Your task to perform on an android device: What's on my calendar today? Image 0: 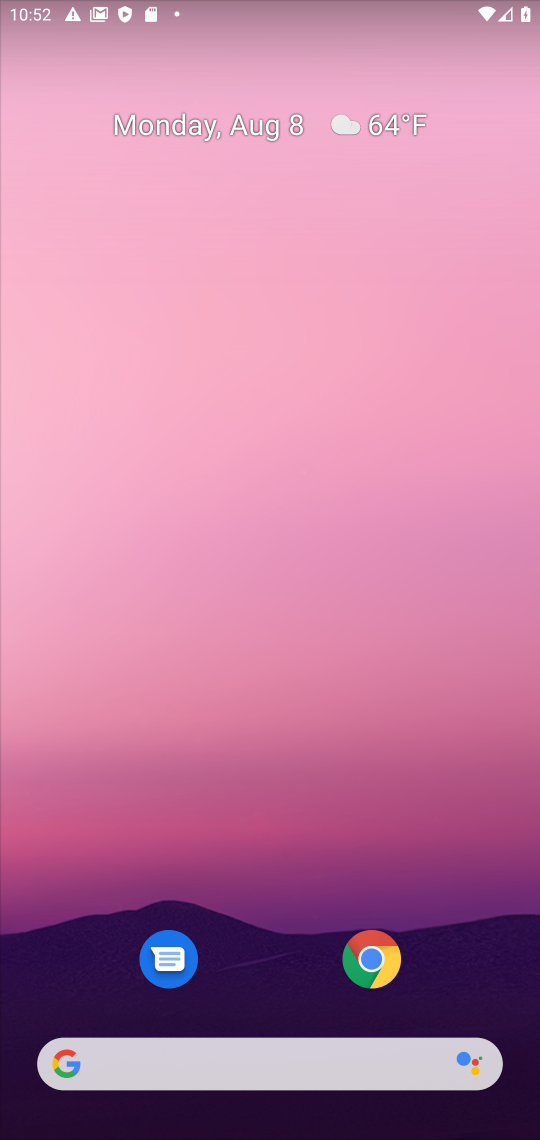
Step 0: drag from (456, 1005) to (320, 189)
Your task to perform on an android device: What's on my calendar today? Image 1: 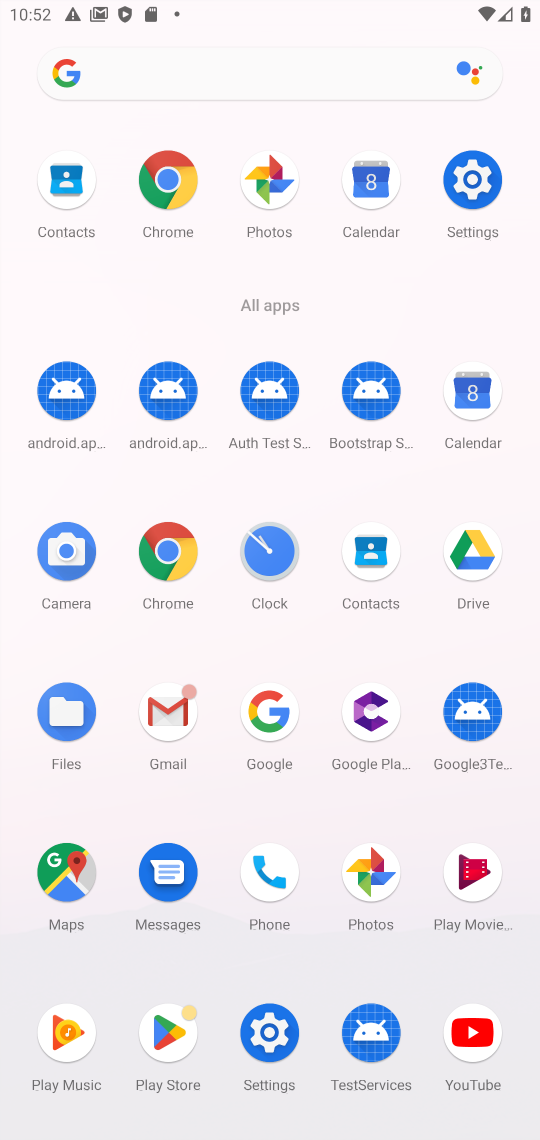
Step 1: click (362, 202)
Your task to perform on an android device: What's on my calendar today? Image 2: 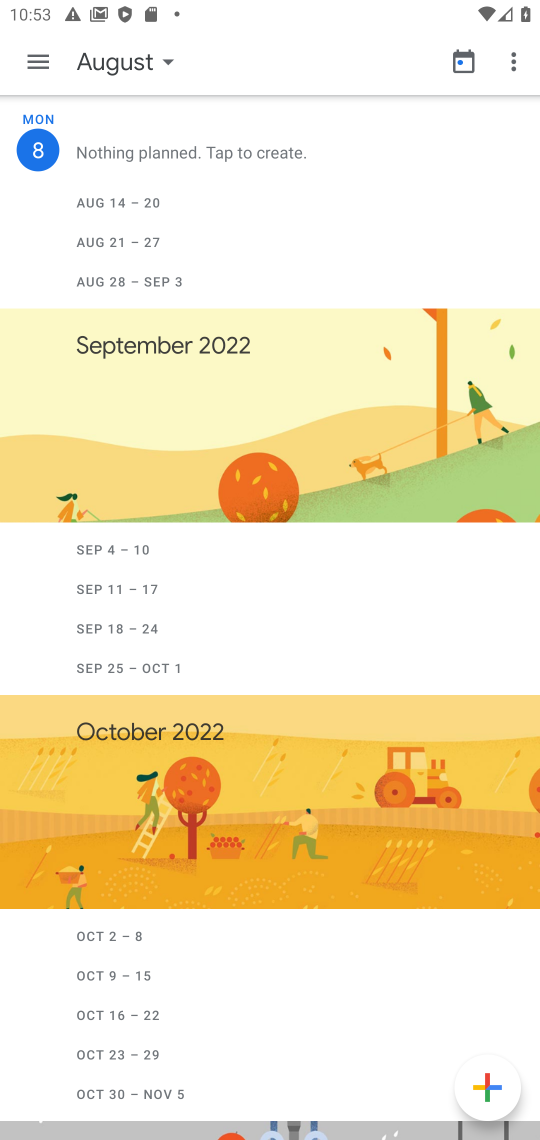
Step 2: click (34, 67)
Your task to perform on an android device: What's on my calendar today? Image 3: 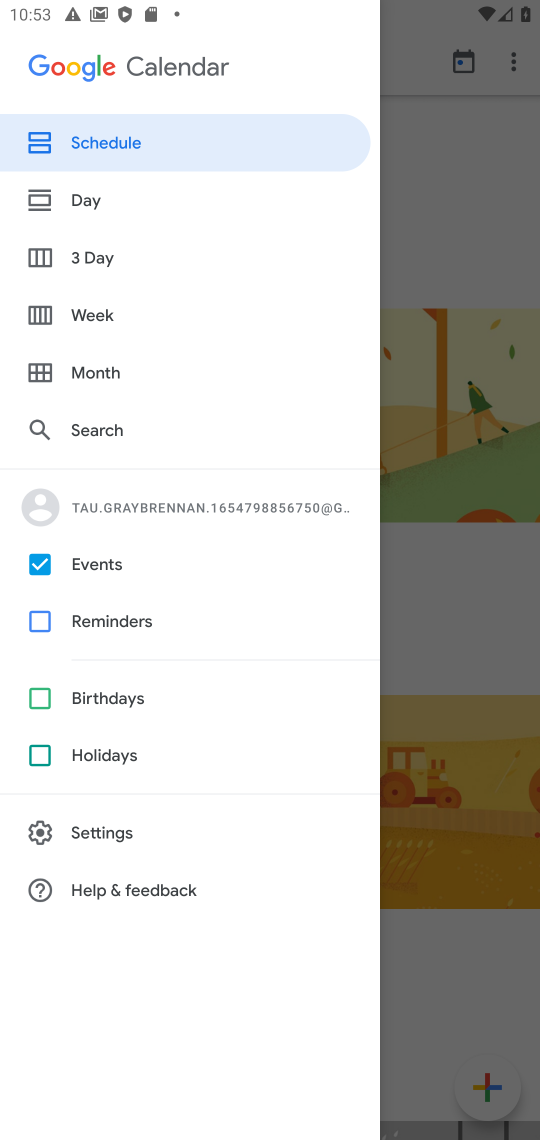
Step 3: click (107, 203)
Your task to perform on an android device: What's on my calendar today? Image 4: 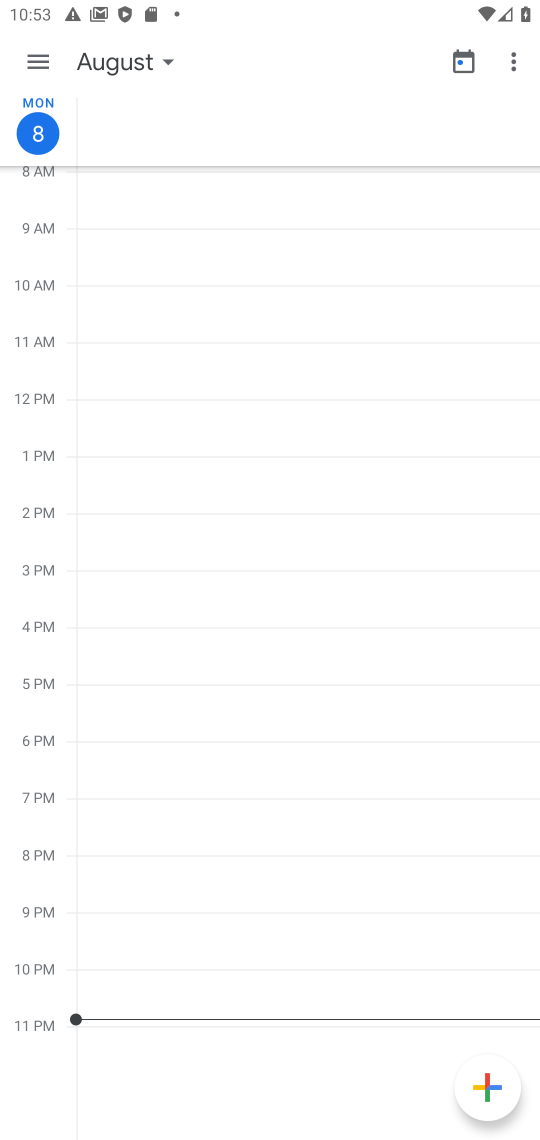
Step 4: click (146, 60)
Your task to perform on an android device: What's on my calendar today? Image 5: 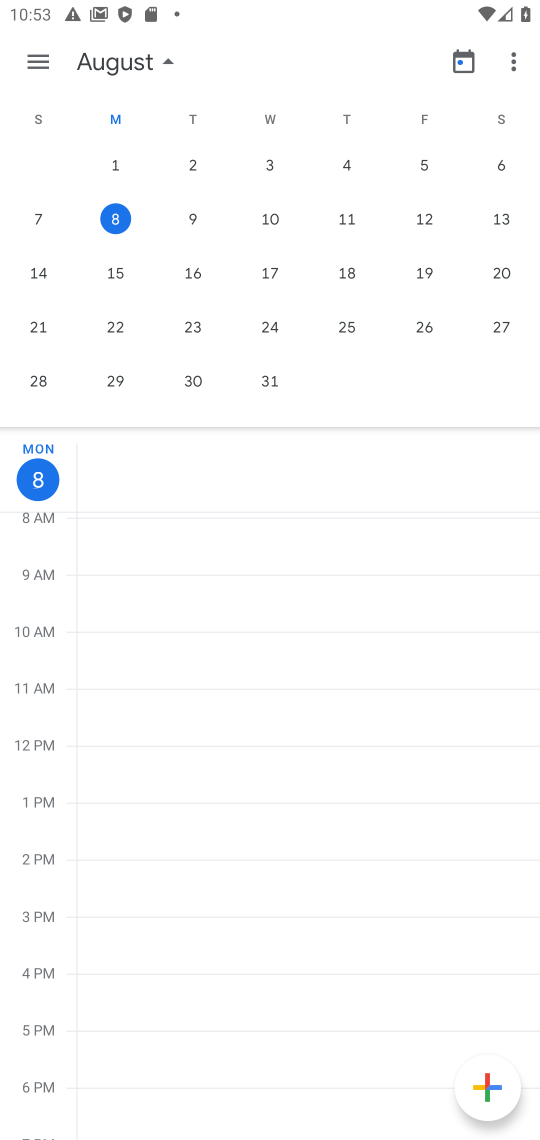
Step 5: click (191, 219)
Your task to perform on an android device: What's on my calendar today? Image 6: 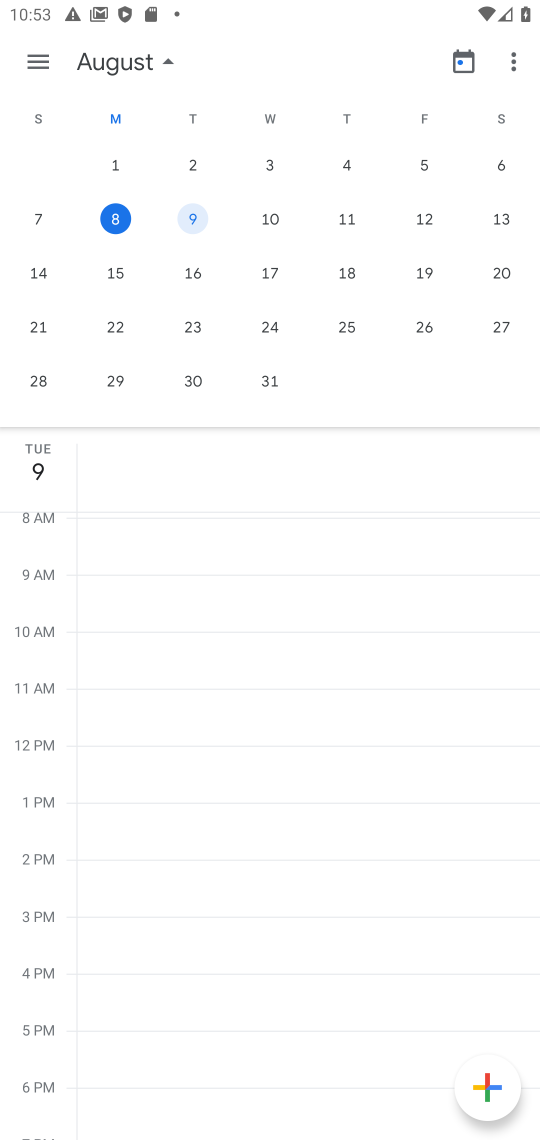
Step 6: task complete